Your task to perform on an android device: open sync settings in chrome Image 0: 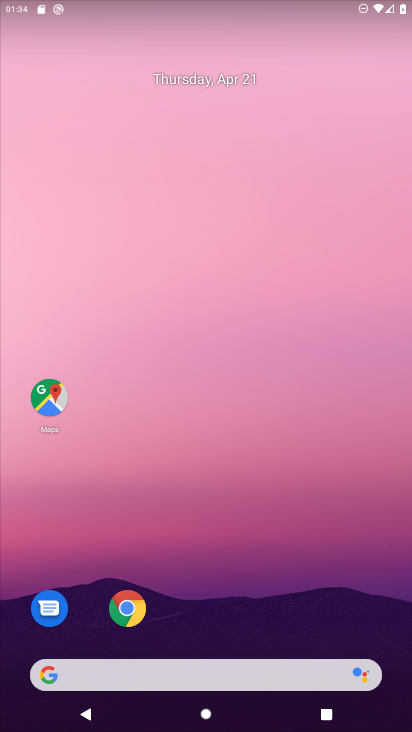
Step 0: drag from (241, 399) to (233, 212)
Your task to perform on an android device: open sync settings in chrome Image 1: 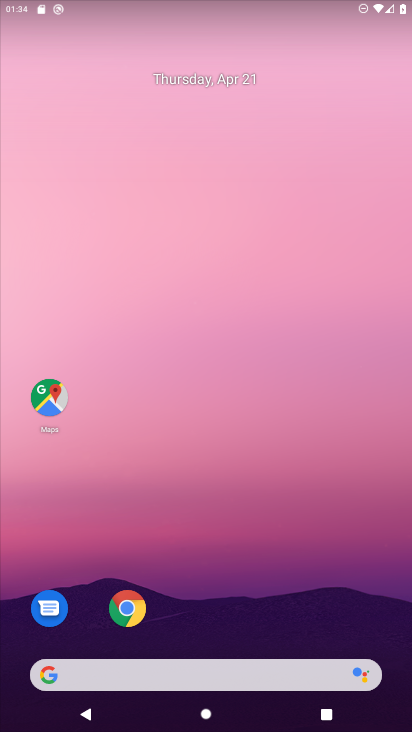
Step 1: drag from (232, 448) to (232, 316)
Your task to perform on an android device: open sync settings in chrome Image 2: 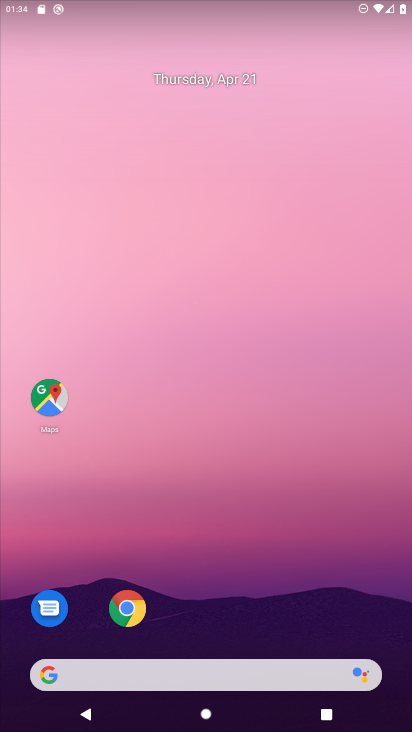
Step 2: drag from (261, 434) to (301, 295)
Your task to perform on an android device: open sync settings in chrome Image 3: 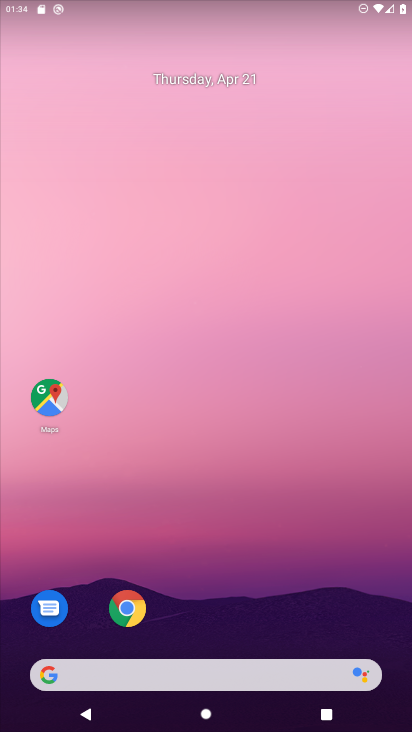
Step 3: drag from (223, 465) to (234, 321)
Your task to perform on an android device: open sync settings in chrome Image 4: 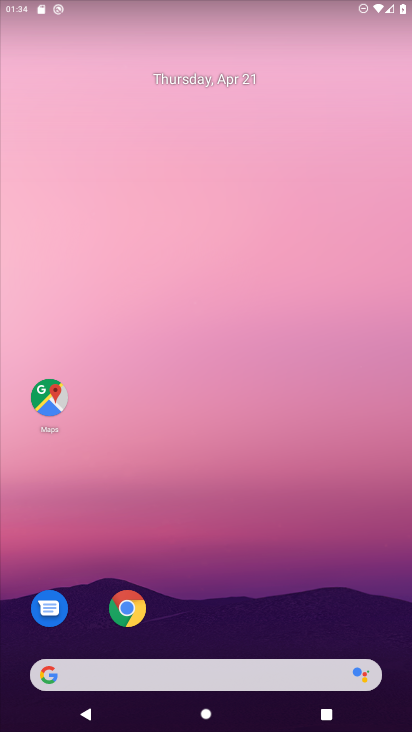
Step 4: drag from (243, 623) to (240, 90)
Your task to perform on an android device: open sync settings in chrome Image 5: 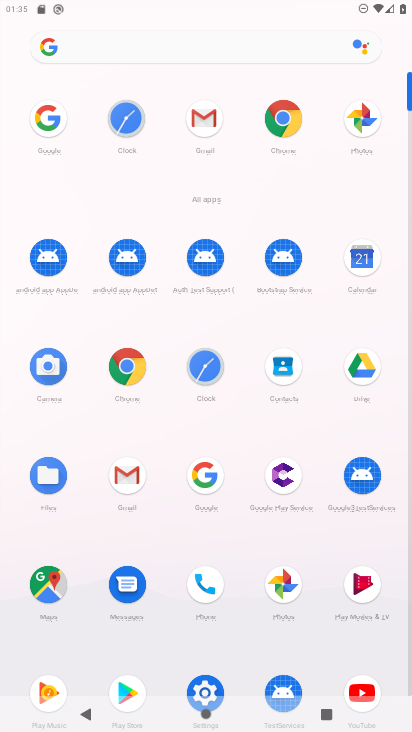
Step 5: click (281, 112)
Your task to perform on an android device: open sync settings in chrome Image 6: 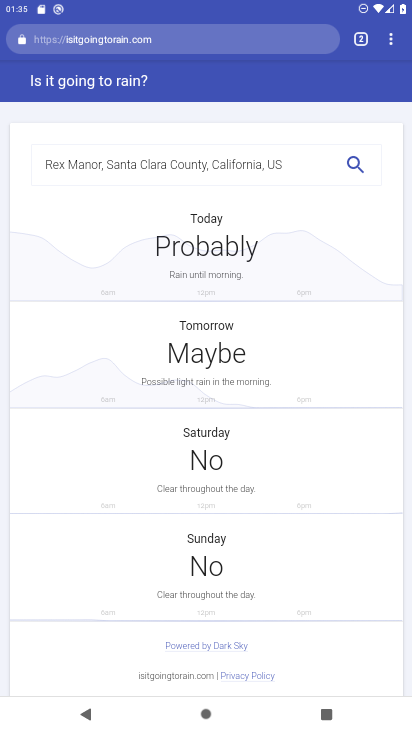
Step 6: click (386, 44)
Your task to perform on an android device: open sync settings in chrome Image 7: 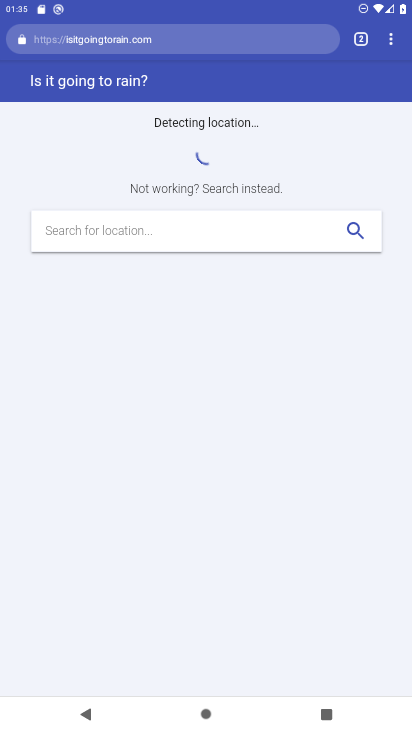
Step 7: click (383, 43)
Your task to perform on an android device: open sync settings in chrome Image 8: 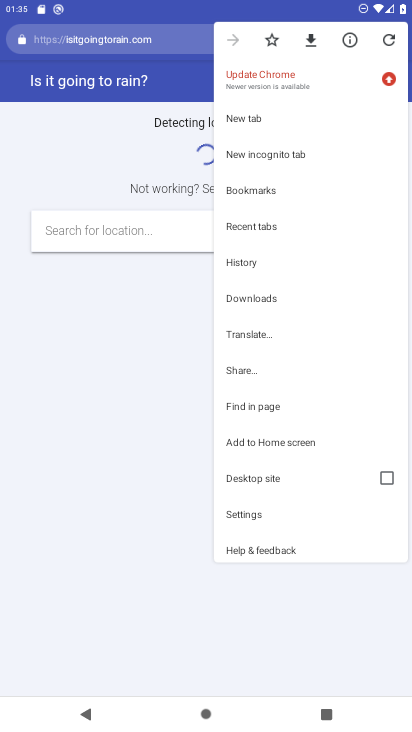
Step 8: click (276, 517)
Your task to perform on an android device: open sync settings in chrome Image 9: 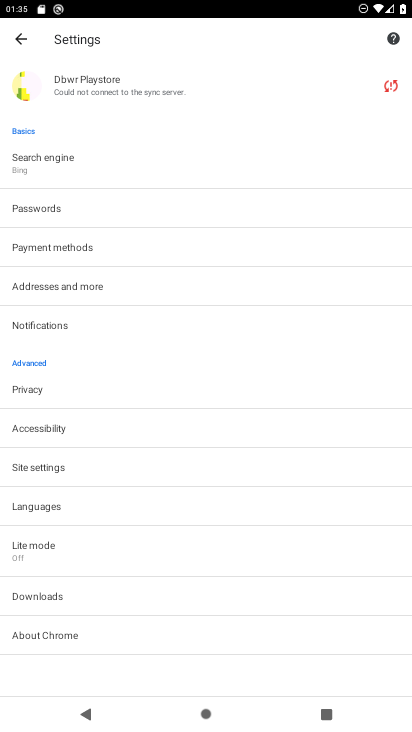
Step 9: click (75, 160)
Your task to perform on an android device: open sync settings in chrome Image 10: 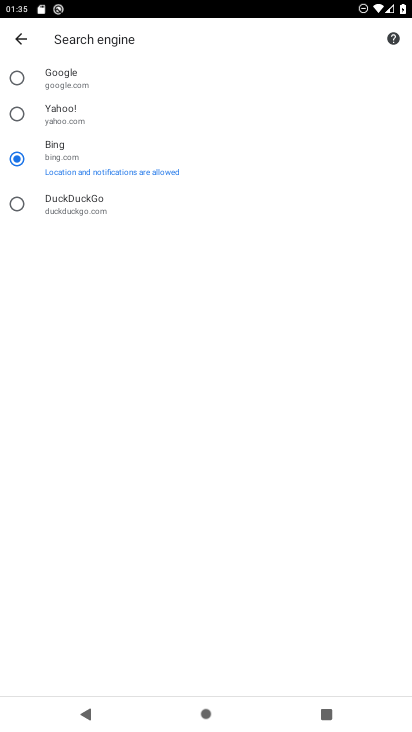
Step 10: click (25, 45)
Your task to perform on an android device: open sync settings in chrome Image 11: 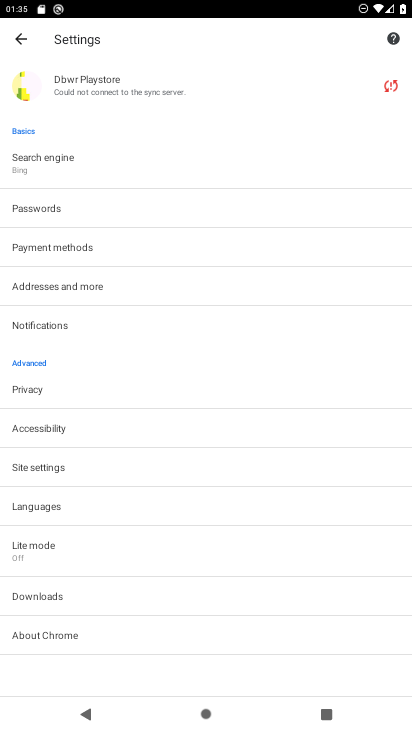
Step 11: click (110, 80)
Your task to perform on an android device: open sync settings in chrome Image 12: 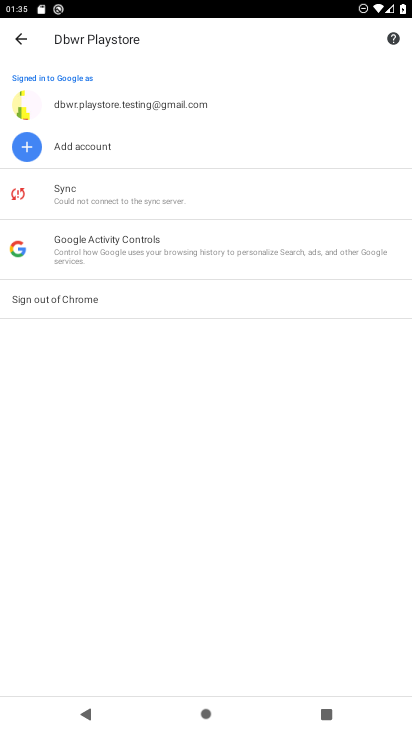
Step 12: click (80, 190)
Your task to perform on an android device: open sync settings in chrome Image 13: 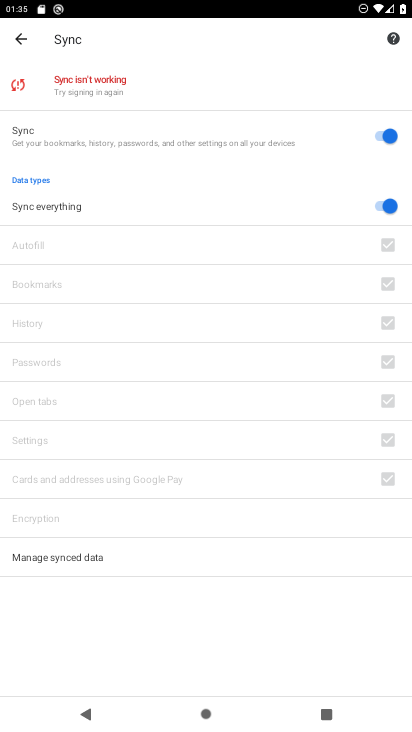
Step 13: task complete